Your task to perform on an android device: Search for sushi restaurants on Maps Image 0: 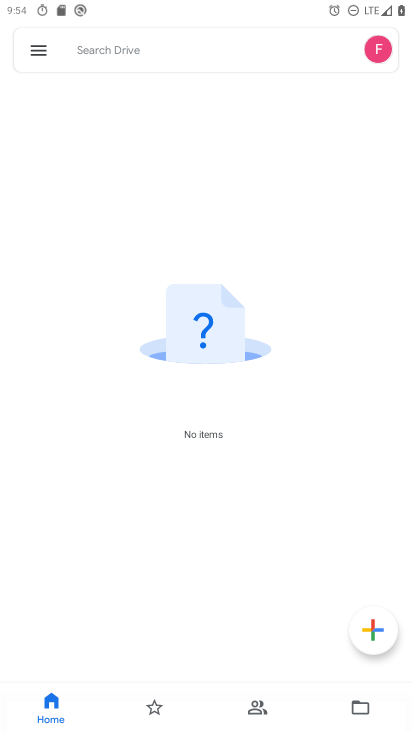
Step 0: press home button
Your task to perform on an android device: Search for sushi restaurants on Maps Image 1: 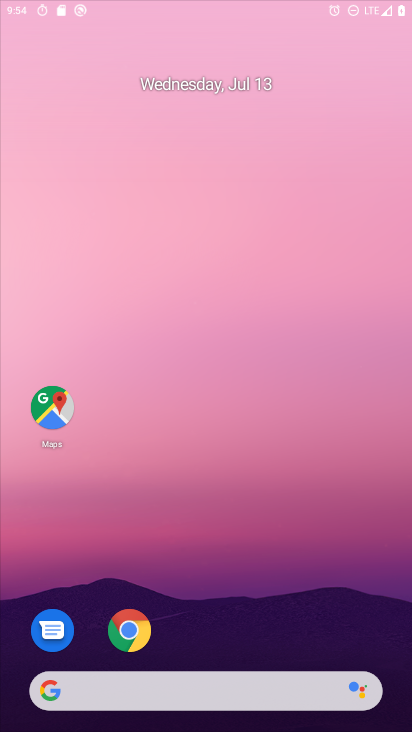
Step 1: drag from (373, 685) to (15, 93)
Your task to perform on an android device: Search for sushi restaurants on Maps Image 2: 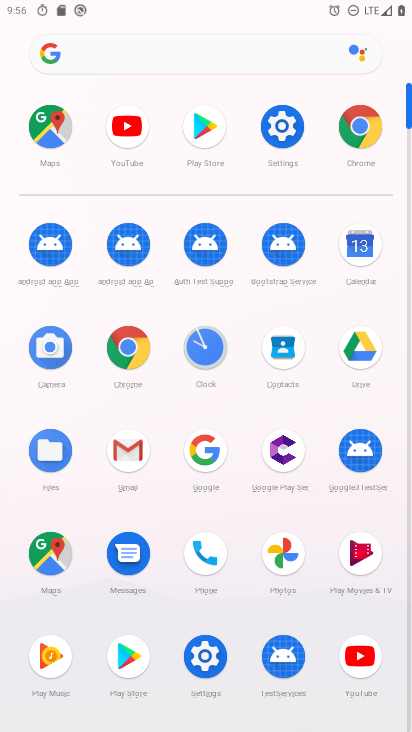
Step 2: click (53, 569)
Your task to perform on an android device: Search for sushi restaurants on Maps Image 3: 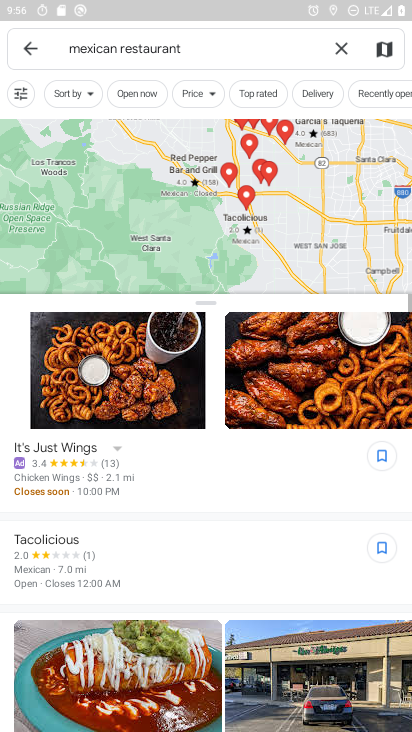
Step 3: click (339, 46)
Your task to perform on an android device: Search for sushi restaurants on Maps Image 4: 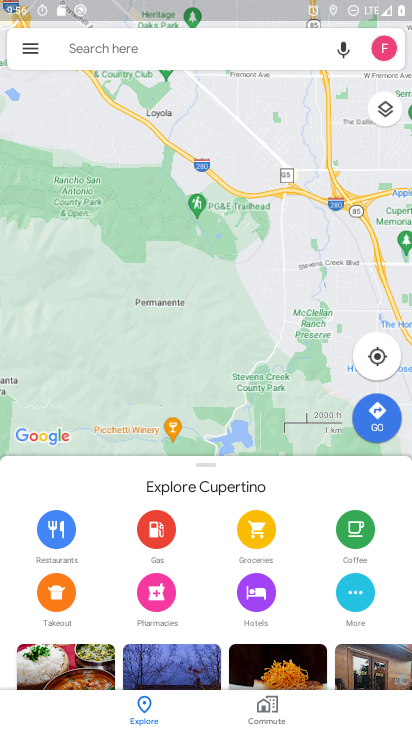
Step 4: click (198, 49)
Your task to perform on an android device: Search for sushi restaurants on Maps Image 5: 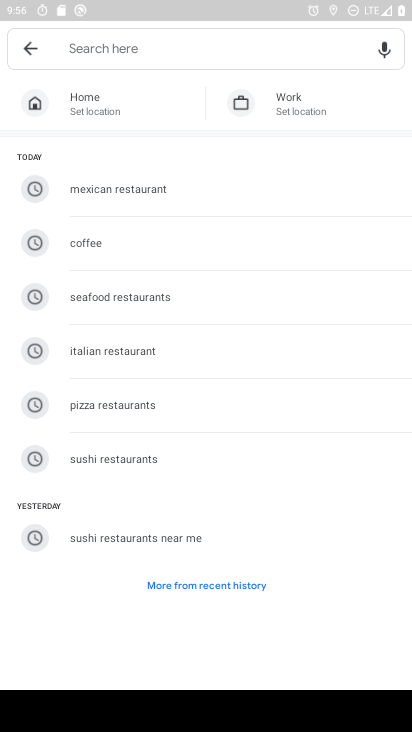
Step 5: click (95, 457)
Your task to perform on an android device: Search for sushi restaurants on Maps Image 6: 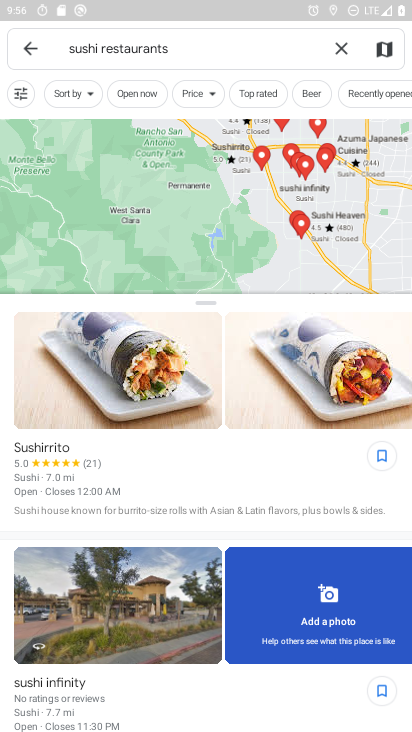
Step 6: task complete